Your task to perform on an android device: Go to battery settings Image 0: 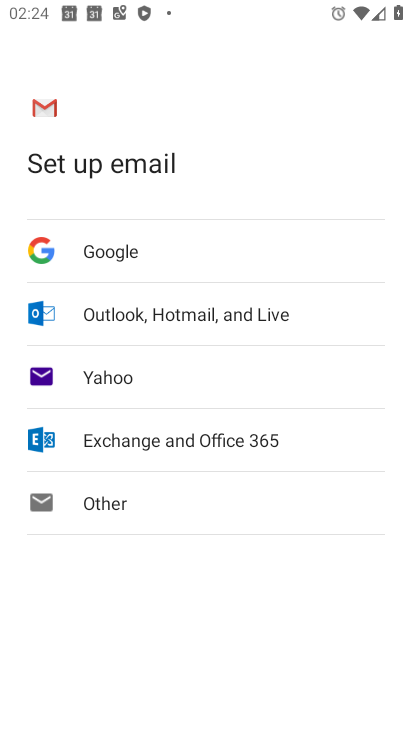
Step 0: press home button
Your task to perform on an android device: Go to battery settings Image 1: 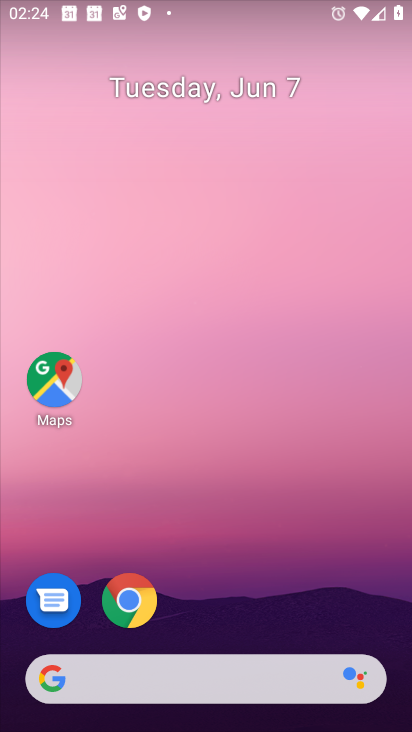
Step 1: drag from (228, 716) to (229, 89)
Your task to perform on an android device: Go to battery settings Image 2: 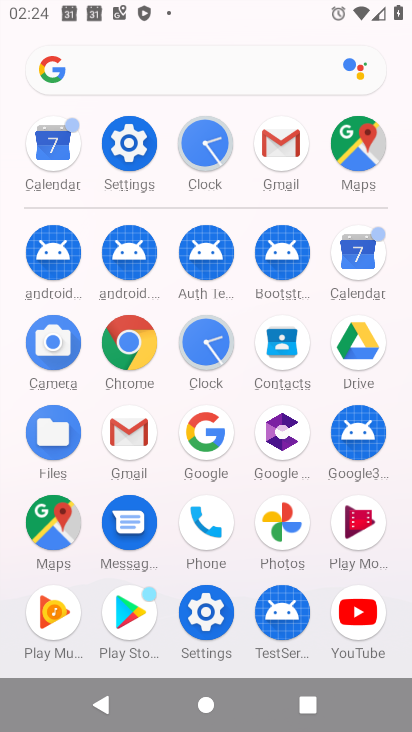
Step 2: click (122, 141)
Your task to perform on an android device: Go to battery settings Image 3: 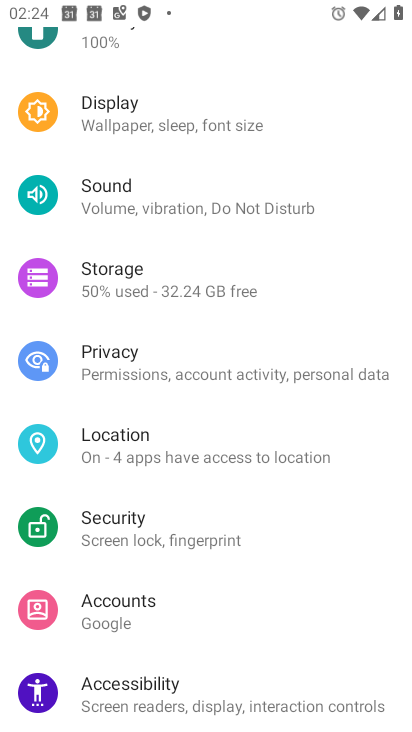
Step 3: drag from (206, 171) to (202, 474)
Your task to perform on an android device: Go to battery settings Image 4: 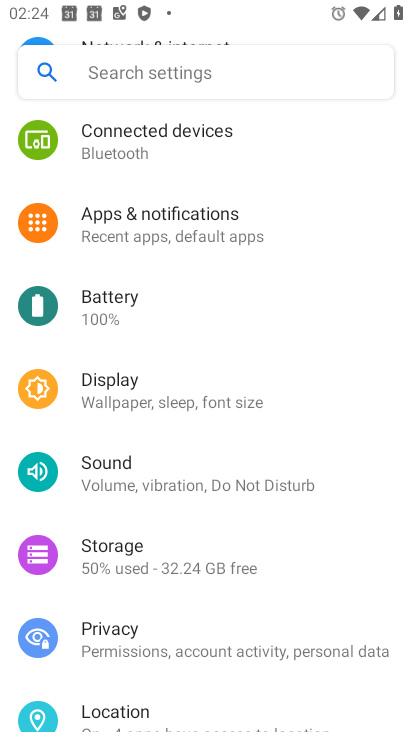
Step 4: drag from (149, 675) to (137, 407)
Your task to perform on an android device: Go to battery settings Image 5: 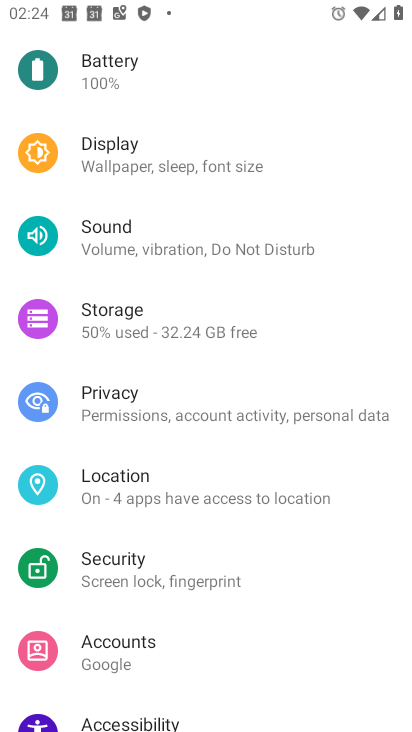
Step 5: click (103, 68)
Your task to perform on an android device: Go to battery settings Image 6: 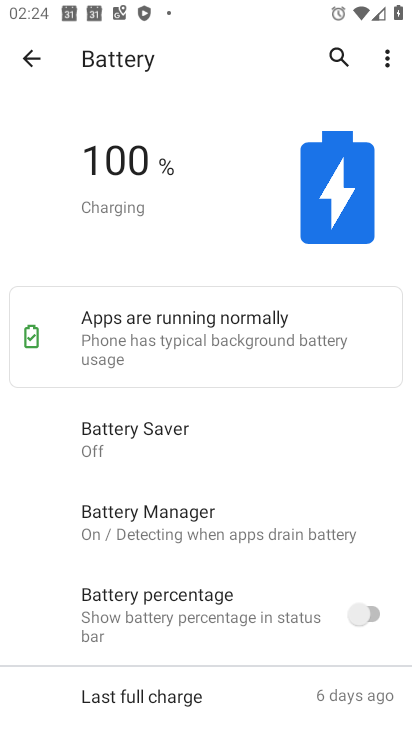
Step 6: task complete